Your task to perform on an android device: change notifications settings Image 0: 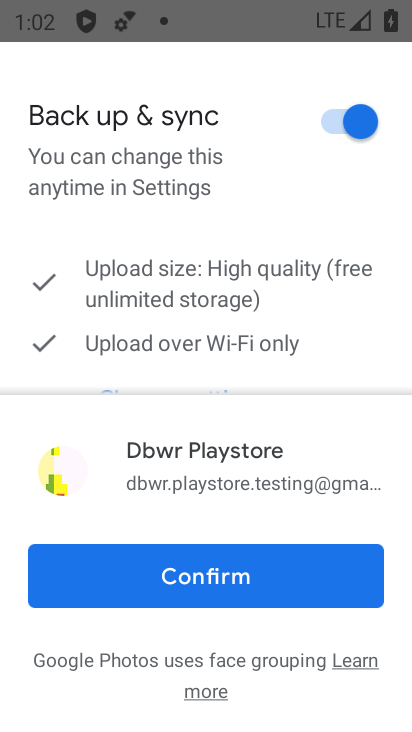
Step 0: press home button
Your task to perform on an android device: change notifications settings Image 1: 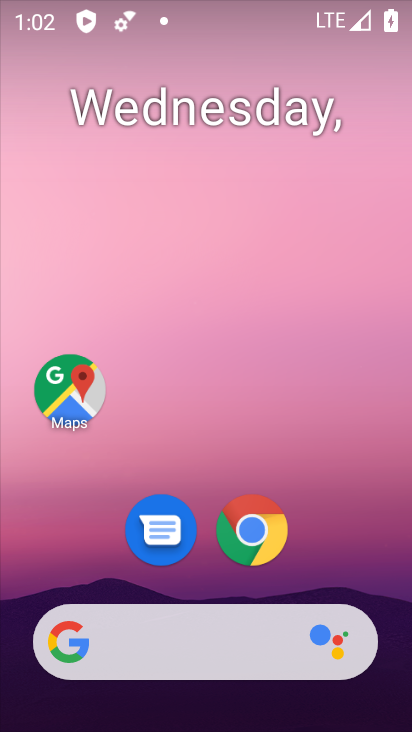
Step 1: drag from (348, 549) to (366, 133)
Your task to perform on an android device: change notifications settings Image 2: 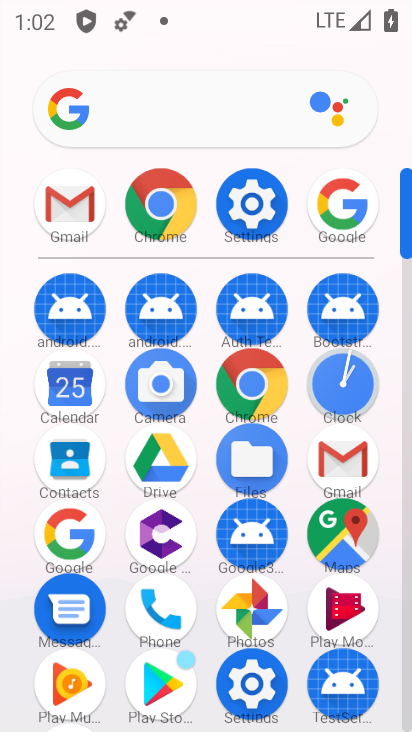
Step 2: click (265, 683)
Your task to perform on an android device: change notifications settings Image 3: 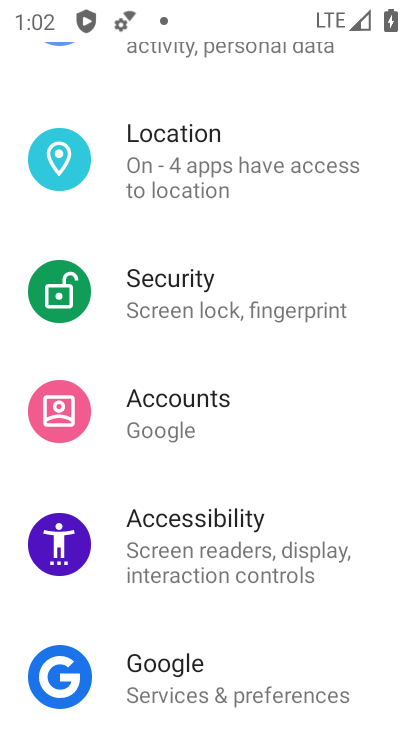
Step 3: drag from (237, 213) to (227, 641)
Your task to perform on an android device: change notifications settings Image 4: 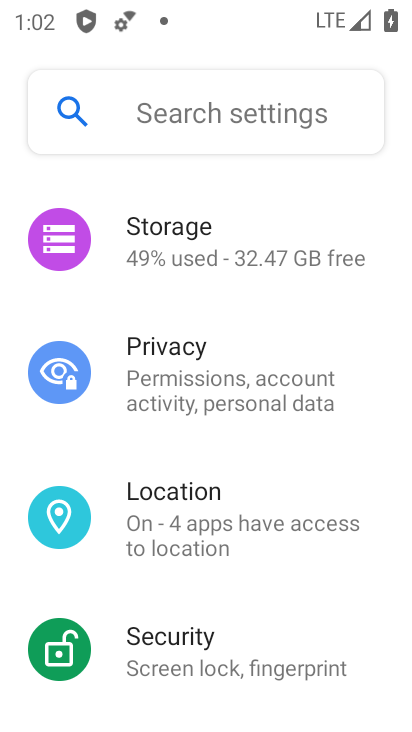
Step 4: drag from (221, 296) to (208, 671)
Your task to perform on an android device: change notifications settings Image 5: 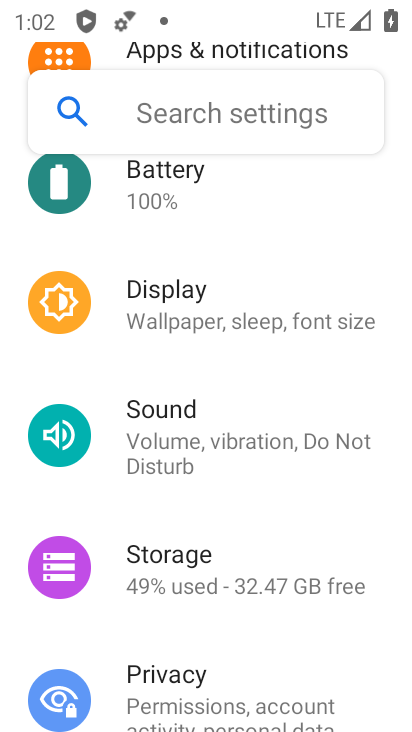
Step 5: drag from (216, 315) to (230, 724)
Your task to perform on an android device: change notifications settings Image 6: 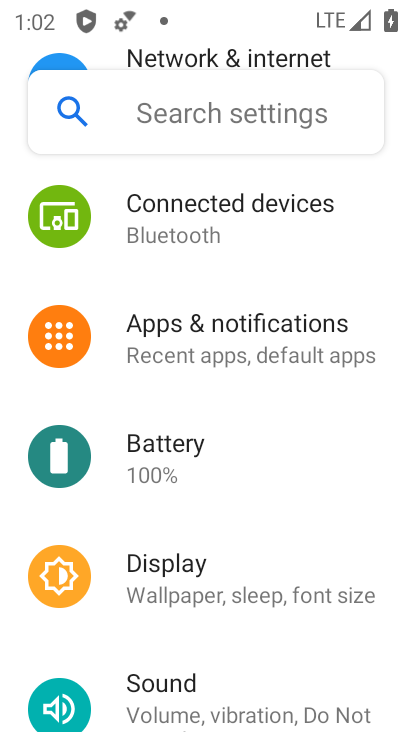
Step 6: click (241, 350)
Your task to perform on an android device: change notifications settings Image 7: 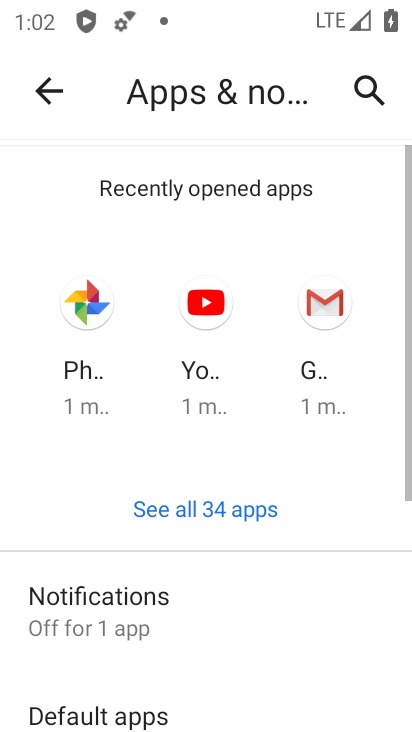
Step 7: drag from (258, 636) to (256, 335)
Your task to perform on an android device: change notifications settings Image 8: 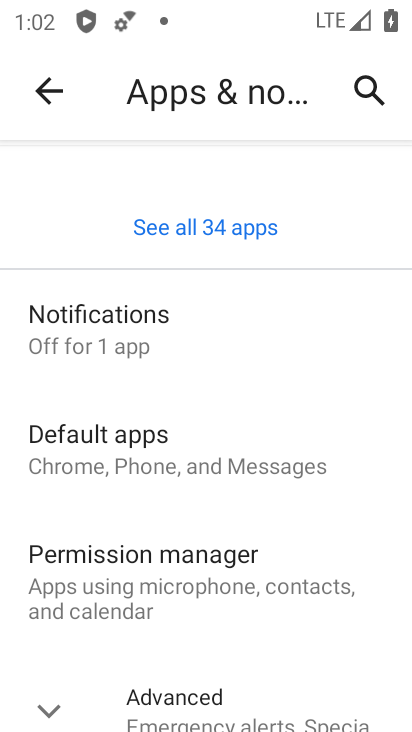
Step 8: click (141, 321)
Your task to perform on an android device: change notifications settings Image 9: 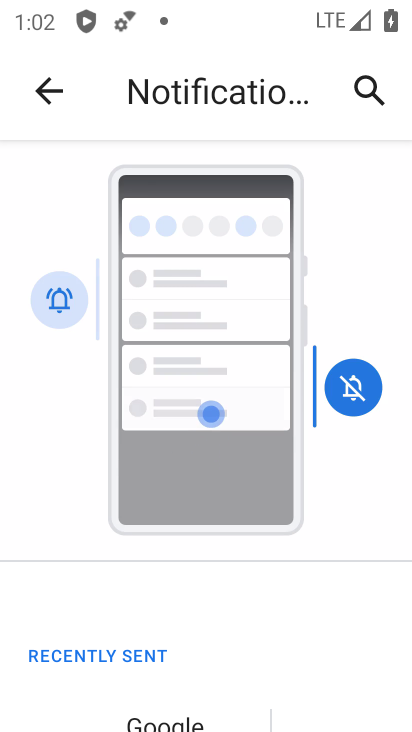
Step 9: drag from (215, 684) to (257, 302)
Your task to perform on an android device: change notifications settings Image 10: 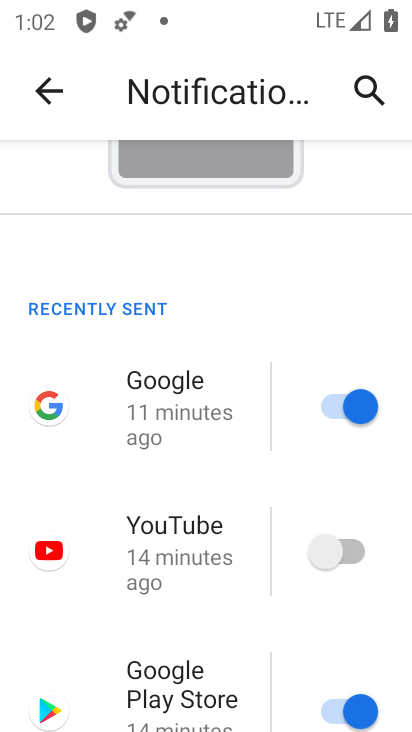
Step 10: click (342, 411)
Your task to perform on an android device: change notifications settings Image 11: 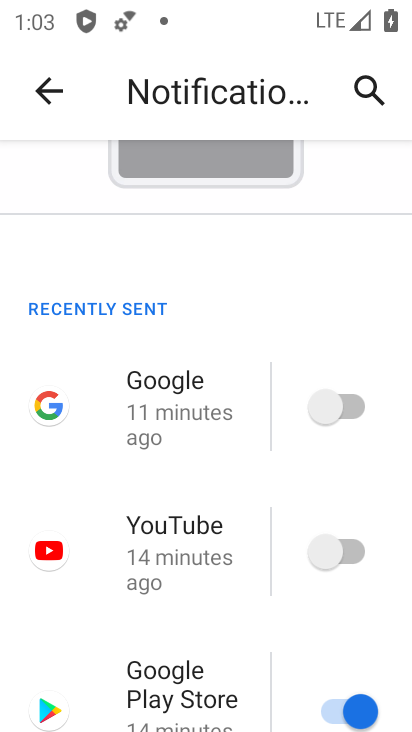
Step 11: task complete